Your task to perform on an android device: empty trash in google photos Image 0: 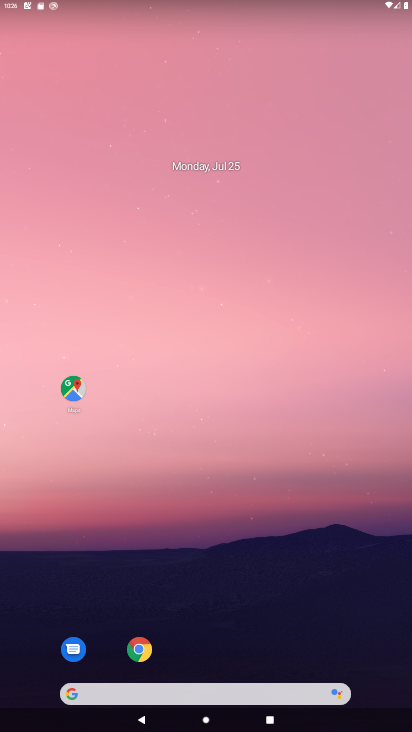
Step 0: drag from (379, 659) to (338, 171)
Your task to perform on an android device: empty trash in google photos Image 1: 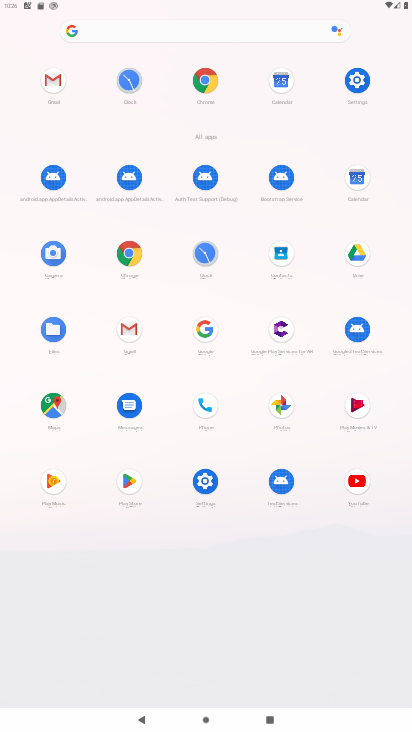
Step 1: click (282, 404)
Your task to perform on an android device: empty trash in google photos Image 2: 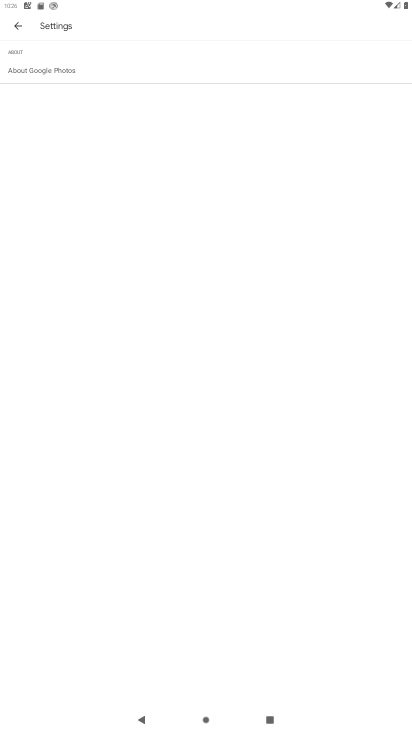
Step 2: press back button
Your task to perform on an android device: empty trash in google photos Image 3: 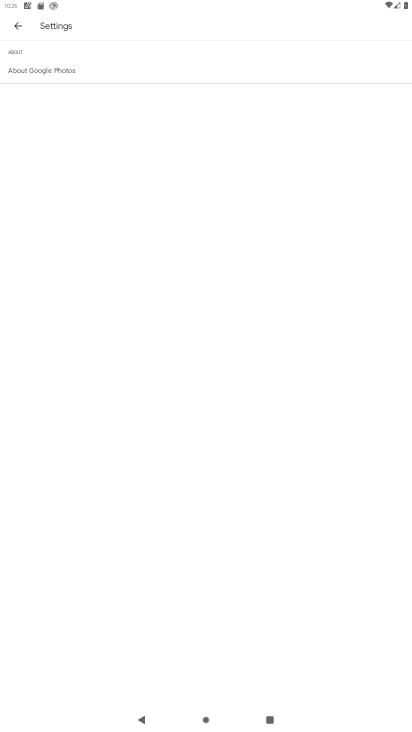
Step 3: press back button
Your task to perform on an android device: empty trash in google photos Image 4: 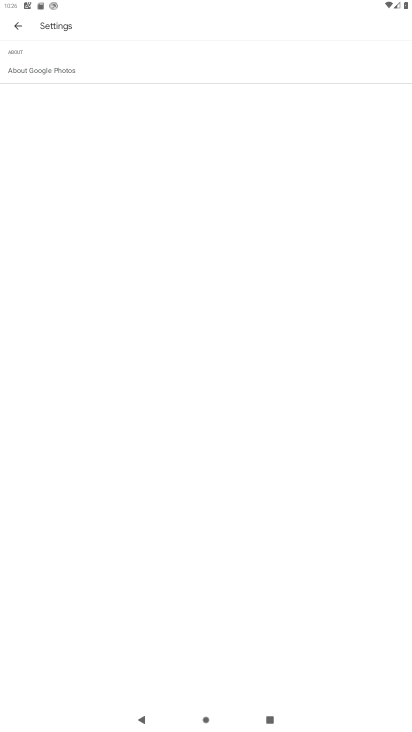
Step 4: press back button
Your task to perform on an android device: empty trash in google photos Image 5: 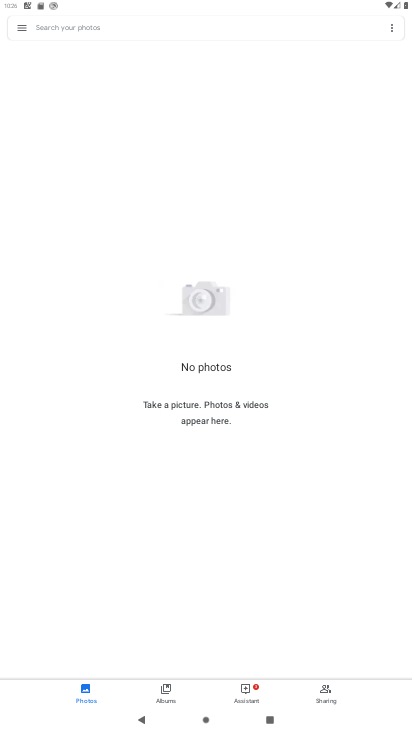
Step 5: click (19, 27)
Your task to perform on an android device: empty trash in google photos Image 6: 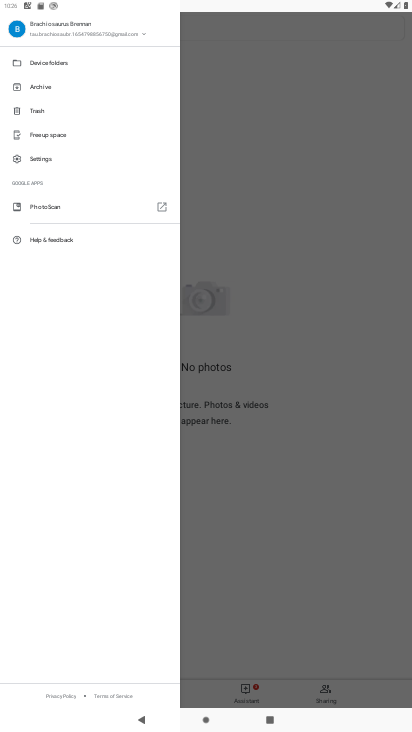
Step 6: click (35, 111)
Your task to perform on an android device: empty trash in google photos Image 7: 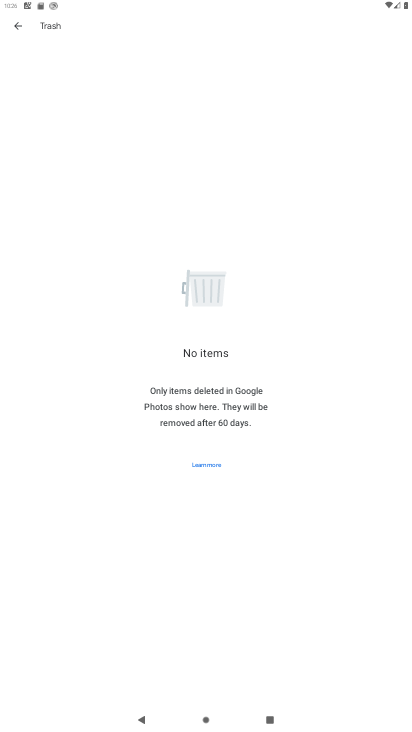
Step 7: task complete